Your task to perform on an android device: read, delete, or share a saved page in the chrome app Image 0: 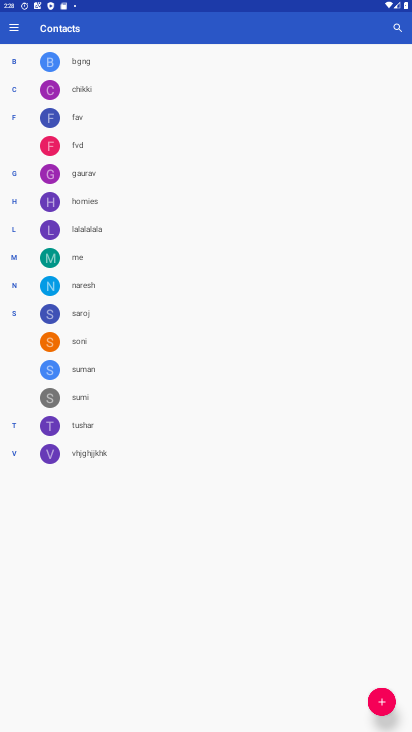
Step 0: press home button
Your task to perform on an android device: read, delete, or share a saved page in the chrome app Image 1: 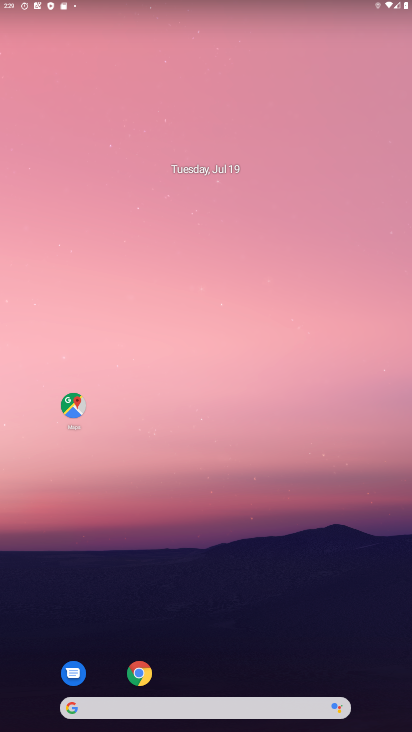
Step 1: click (133, 669)
Your task to perform on an android device: read, delete, or share a saved page in the chrome app Image 2: 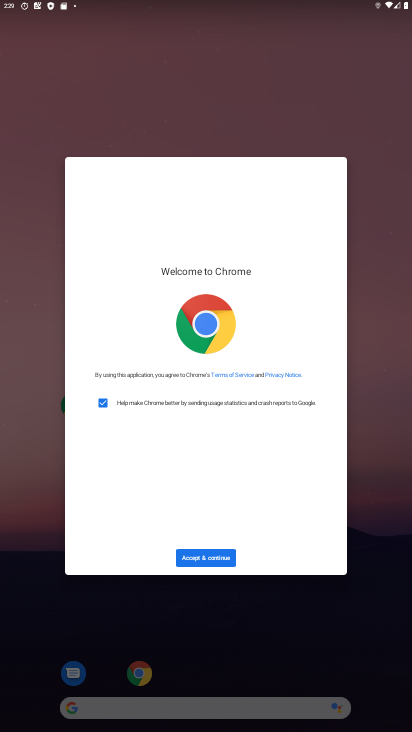
Step 2: click (214, 562)
Your task to perform on an android device: read, delete, or share a saved page in the chrome app Image 3: 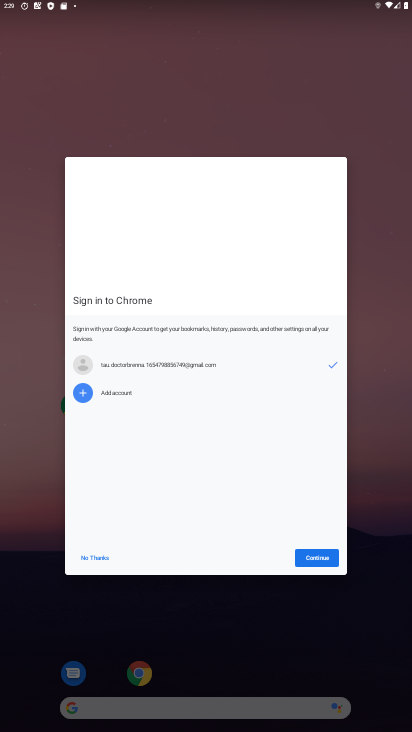
Step 3: click (328, 555)
Your task to perform on an android device: read, delete, or share a saved page in the chrome app Image 4: 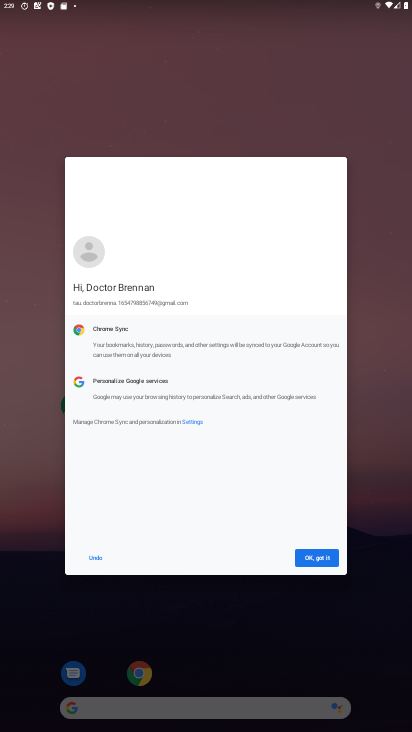
Step 4: click (317, 566)
Your task to perform on an android device: read, delete, or share a saved page in the chrome app Image 5: 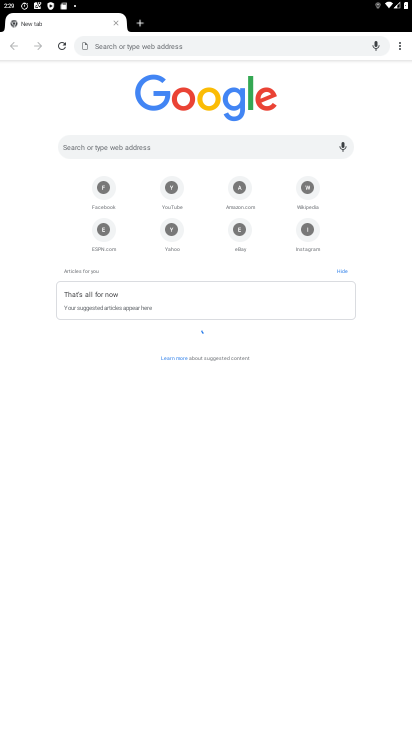
Step 5: click (400, 50)
Your task to perform on an android device: read, delete, or share a saved page in the chrome app Image 6: 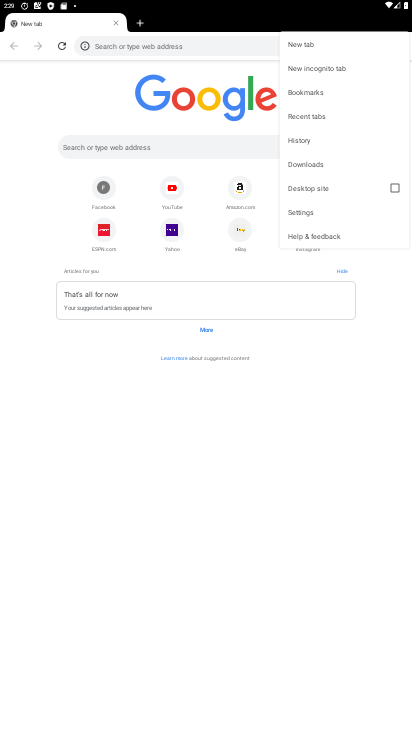
Step 6: click (319, 163)
Your task to perform on an android device: read, delete, or share a saved page in the chrome app Image 7: 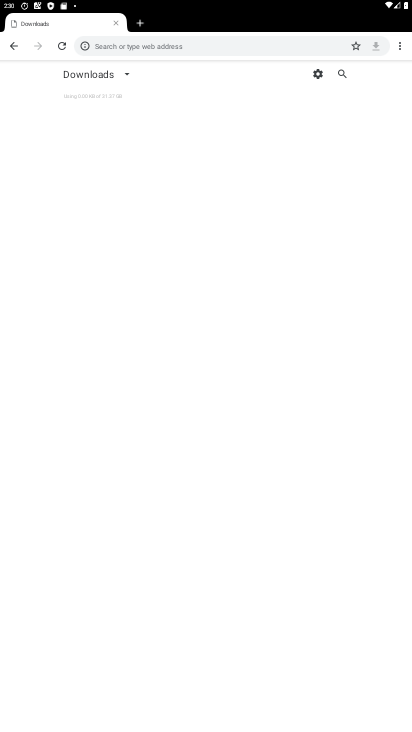
Step 7: task complete